Your task to perform on an android device: Show me popular games on the Play Store Image 0: 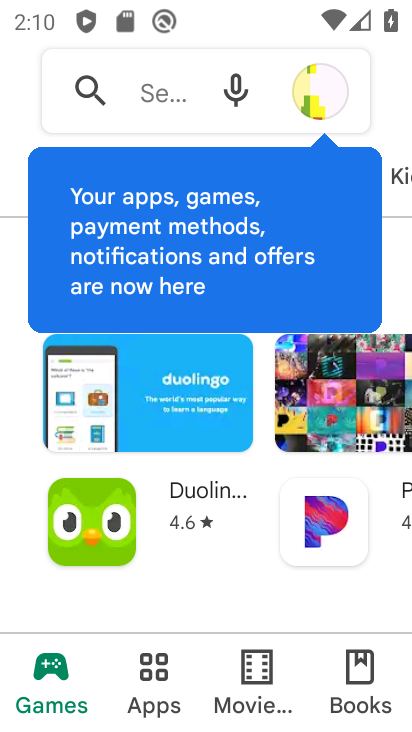
Step 0: drag from (285, 558) to (228, 272)
Your task to perform on an android device: Show me popular games on the Play Store Image 1: 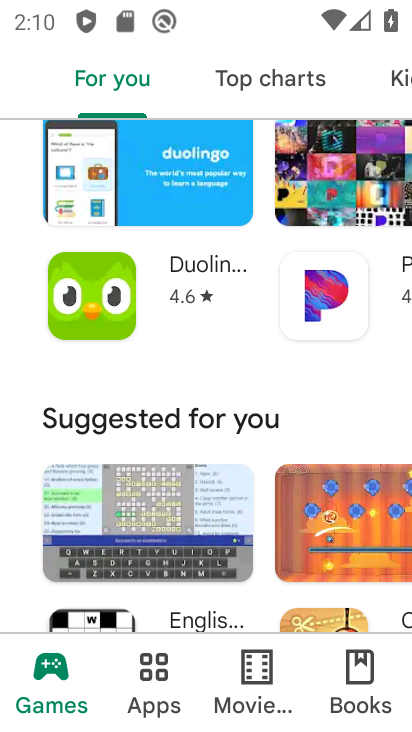
Step 1: task complete